Your task to perform on an android device: move a message to another label in the gmail app Image 0: 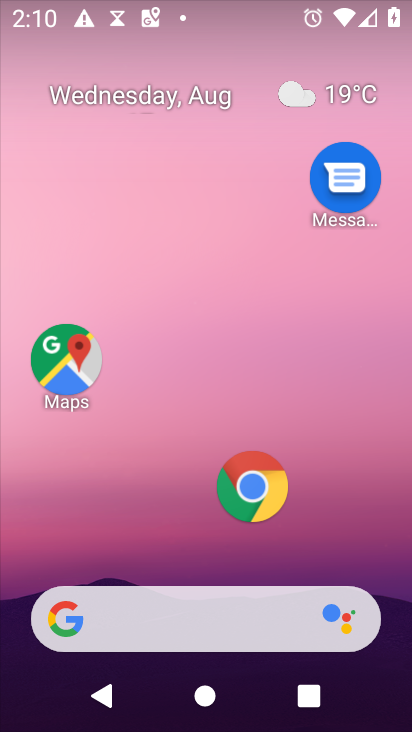
Step 0: drag from (181, 454) to (240, 95)
Your task to perform on an android device: move a message to another label in the gmail app Image 1: 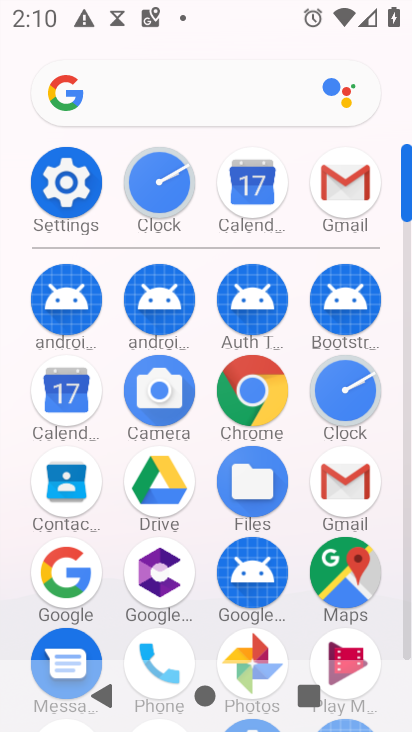
Step 1: click (349, 182)
Your task to perform on an android device: move a message to another label in the gmail app Image 2: 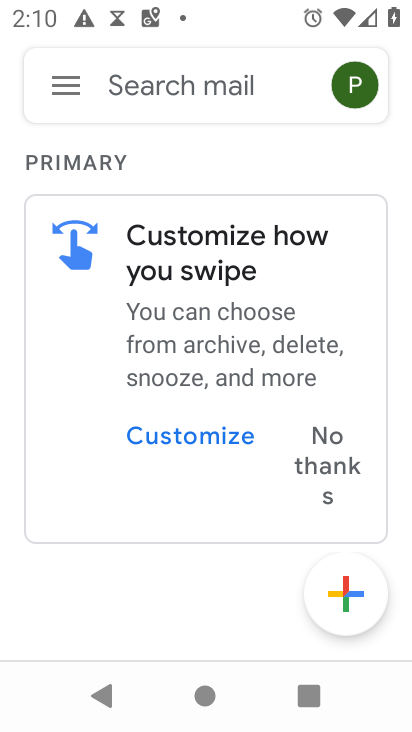
Step 2: click (73, 67)
Your task to perform on an android device: move a message to another label in the gmail app Image 3: 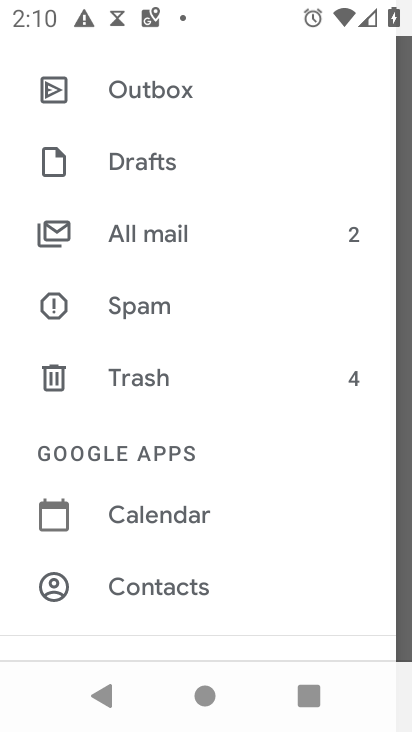
Step 3: click (162, 232)
Your task to perform on an android device: move a message to another label in the gmail app Image 4: 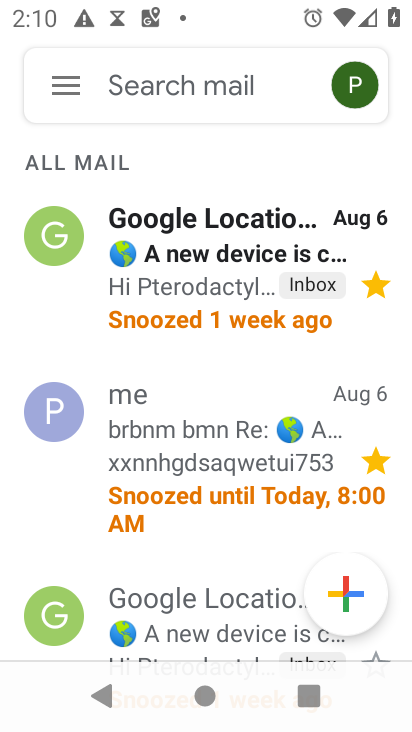
Step 4: click (185, 618)
Your task to perform on an android device: move a message to another label in the gmail app Image 5: 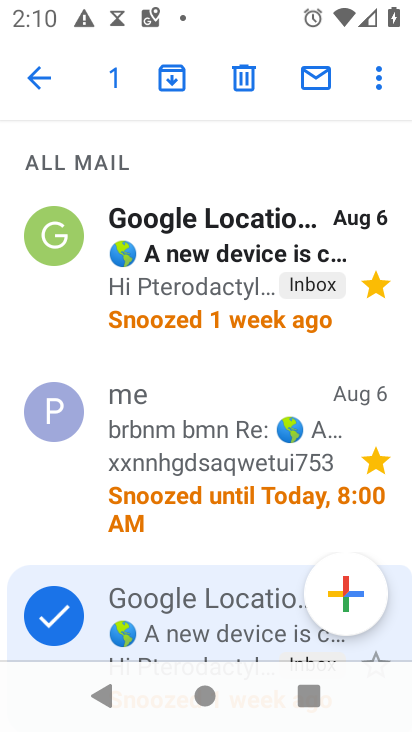
Step 5: click (376, 74)
Your task to perform on an android device: move a message to another label in the gmail app Image 6: 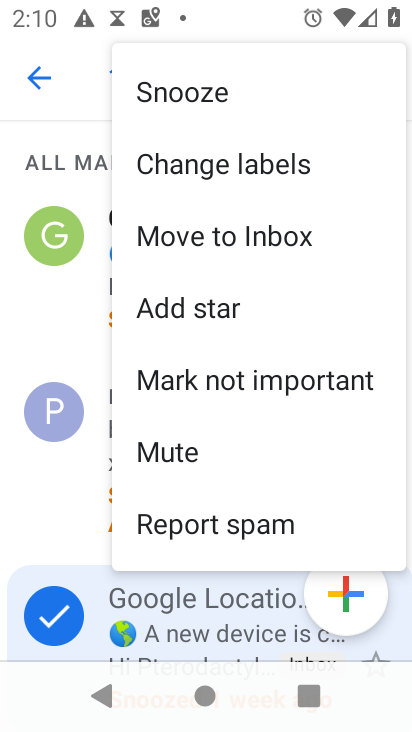
Step 6: click (261, 165)
Your task to perform on an android device: move a message to another label in the gmail app Image 7: 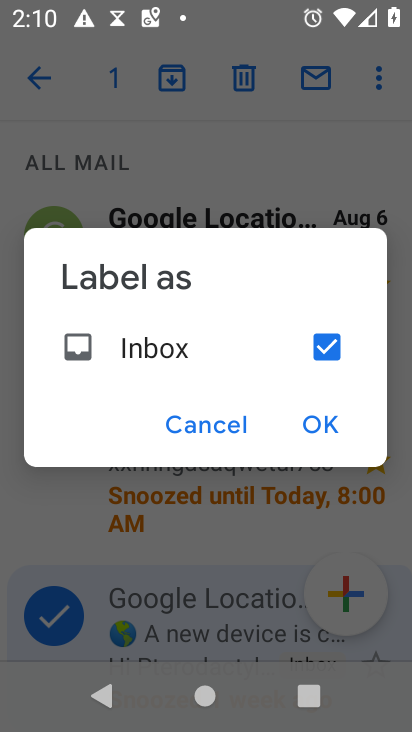
Step 7: click (327, 413)
Your task to perform on an android device: move a message to another label in the gmail app Image 8: 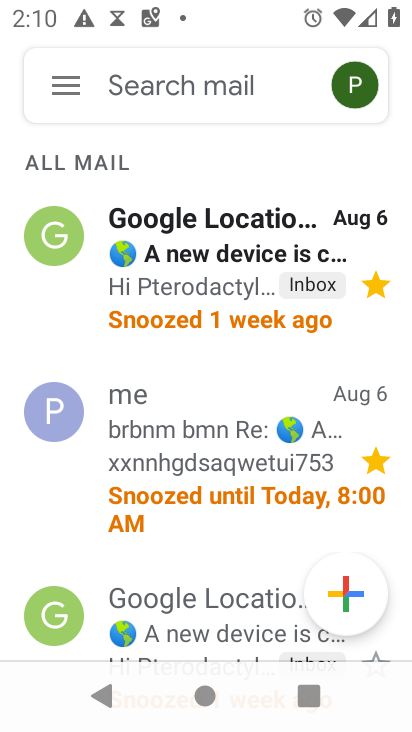
Step 8: task complete